Your task to perform on an android device: search for starred emails in the gmail app Image 0: 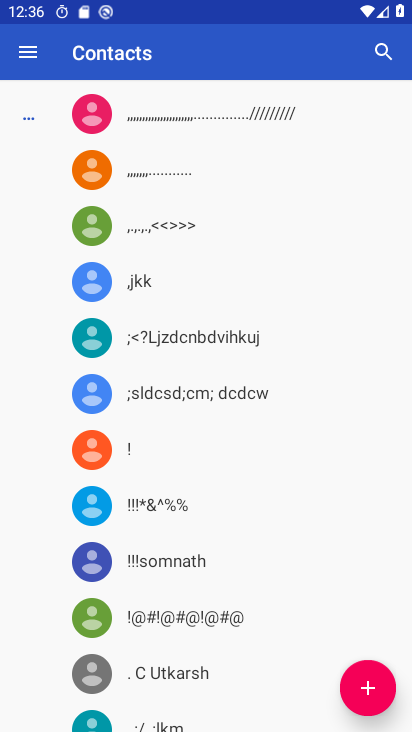
Step 0: drag from (258, 600) to (291, 241)
Your task to perform on an android device: search for starred emails in the gmail app Image 1: 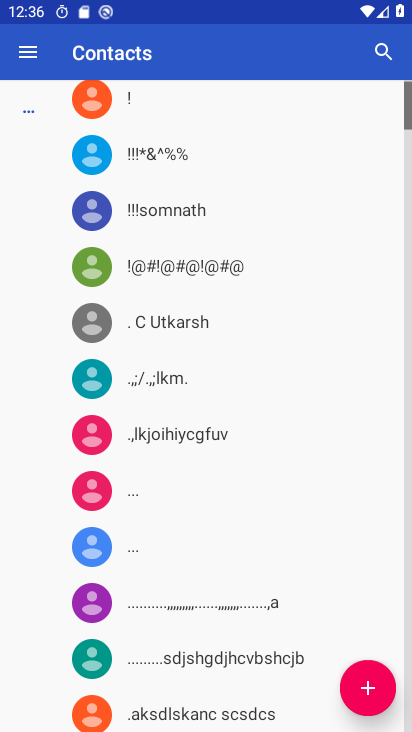
Step 1: press home button
Your task to perform on an android device: search for starred emails in the gmail app Image 2: 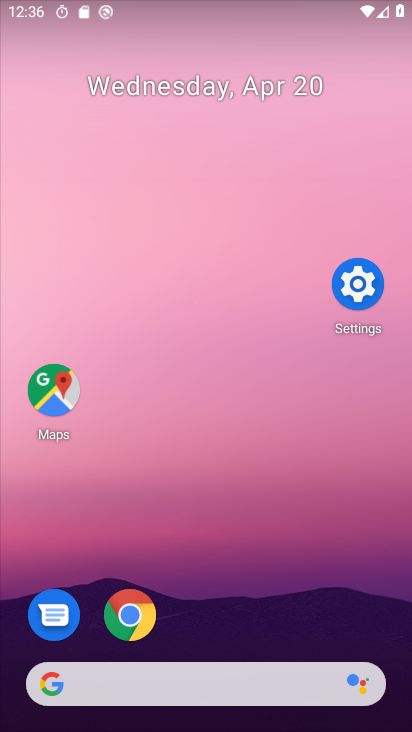
Step 2: drag from (254, 528) to (346, 81)
Your task to perform on an android device: search for starred emails in the gmail app Image 3: 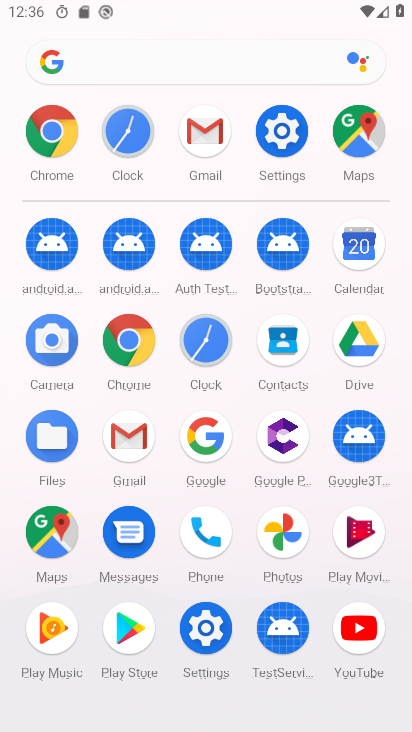
Step 3: click (129, 436)
Your task to perform on an android device: search for starred emails in the gmail app Image 4: 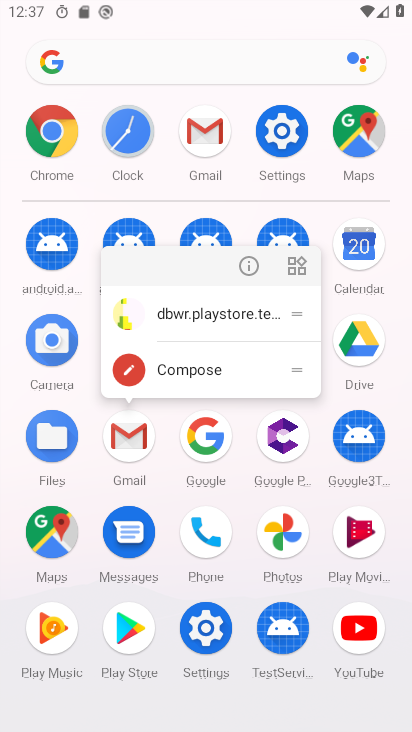
Step 4: click (236, 267)
Your task to perform on an android device: search for starred emails in the gmail app Image 5: 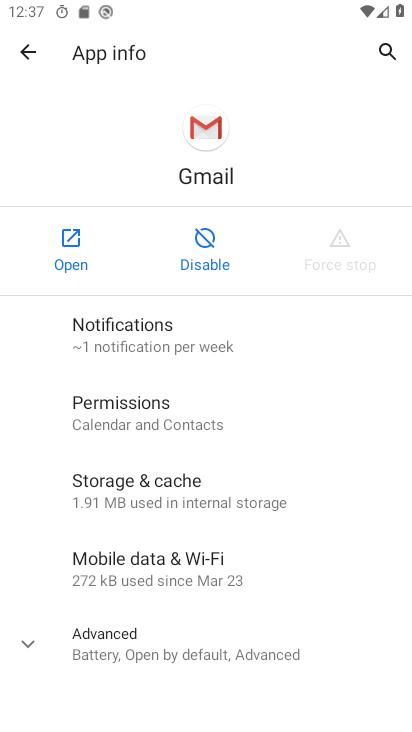
Step 5: click (70, 252)
Your task to perform on an android device: search for starred emails in the gmail app Image 6: 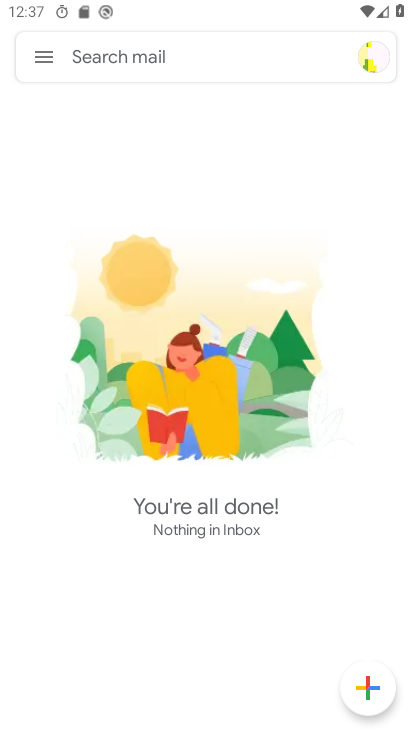
Step 6: click (47, 58)
Your task to perform on an android device: search for starred emails in the gmail app Image 7: 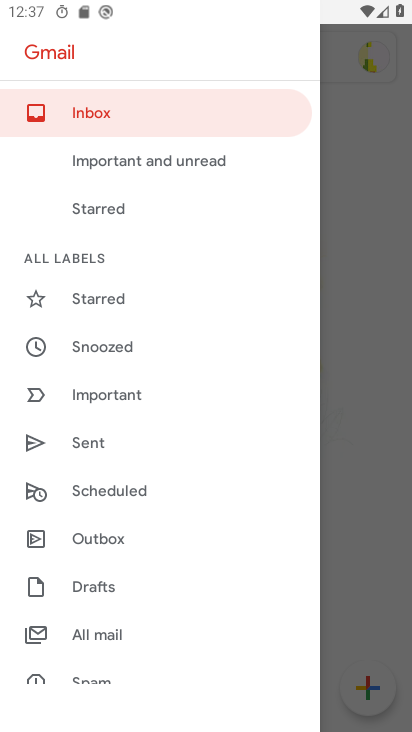
Step 7: click (111, 299)
Your task to perform on an android device: search for starred emails in the gmail app Image 8: 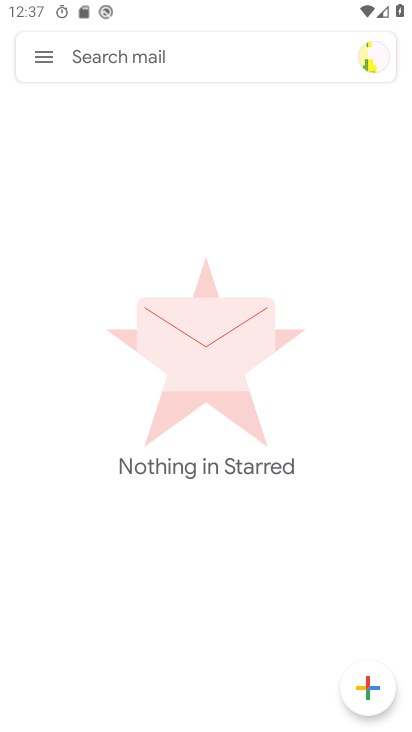
Step 8: task complete